Your task to perform on an android device: Search for 12ft 120W LED tube light on home depot Image 0: 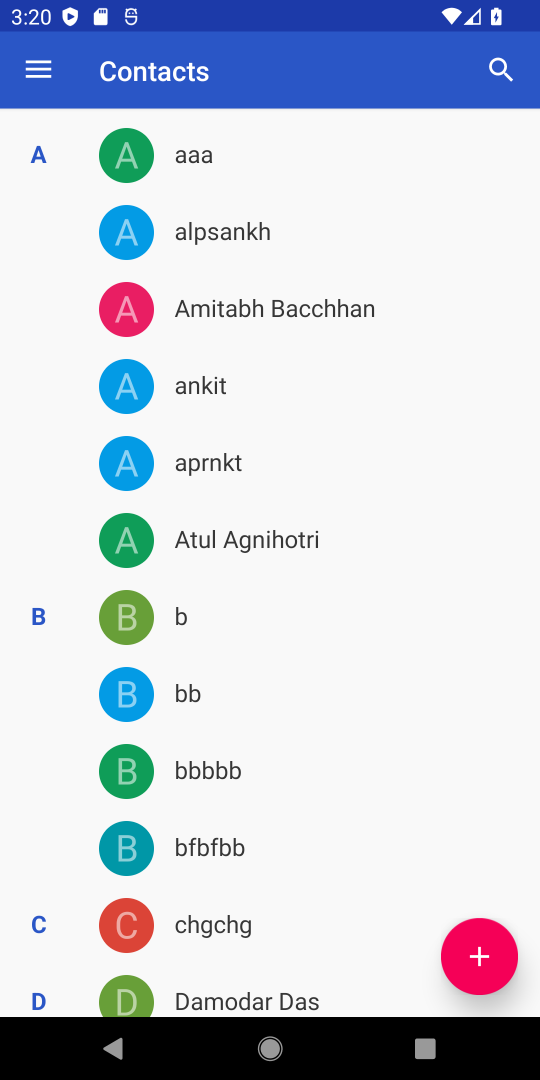
Step 0: press home button
Your task to perform on an android device: Search for 12ft 120W LED tube light on home depot Image 1: 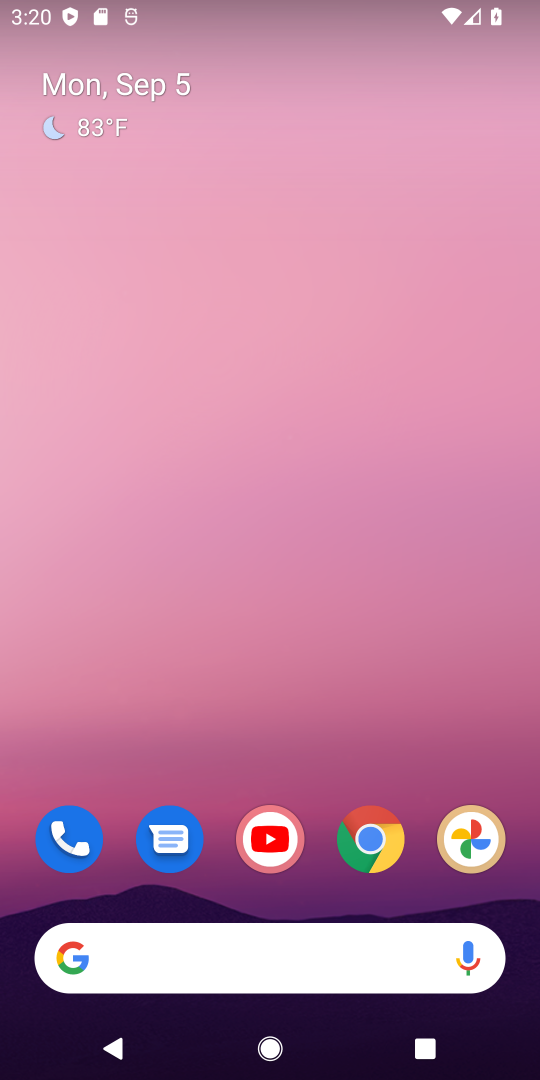
Step 1: click (373, 849)
Your task to perform on an android device: Search for 12ft 120W LED tube light on home depot Image 2: 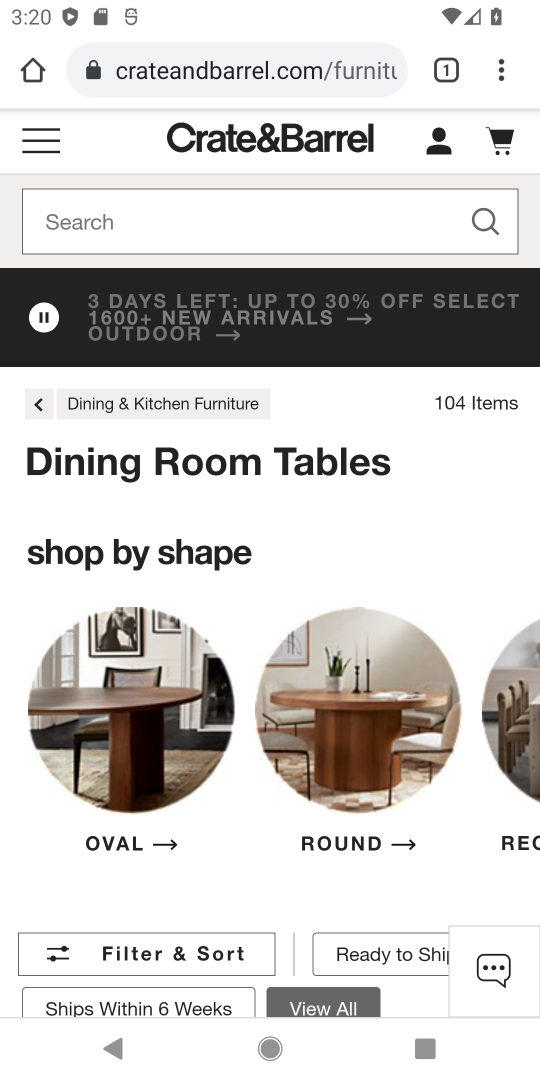
Step 2: click (241, 62)
Your task to perform on an android device: Search for 12ft 120W LED tube light on home depot Image 3: 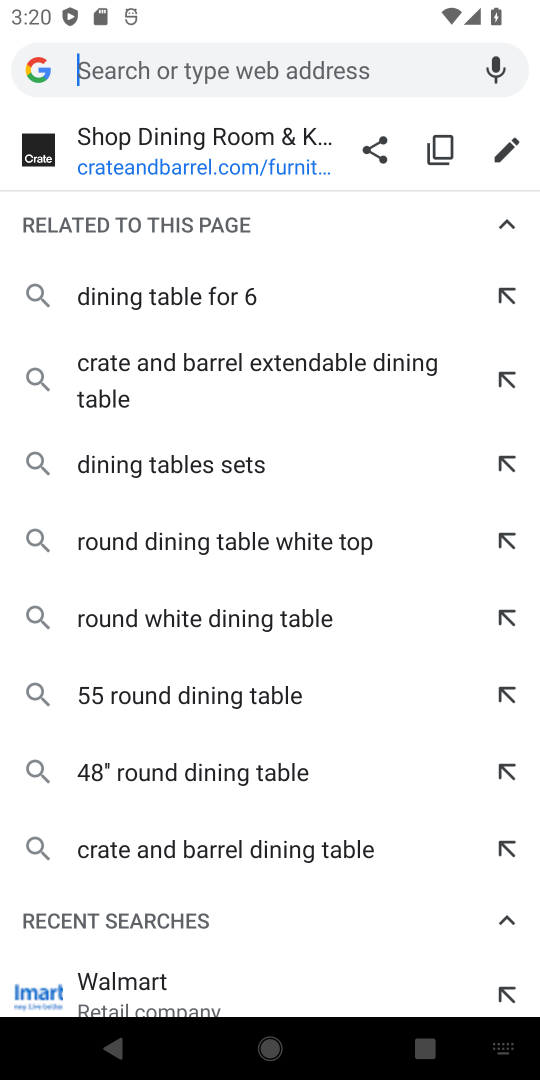
Step 3: type "home depot"
Your task to perform on an android device: Search for 12ft 120W LED tube light on home depot Image 4: 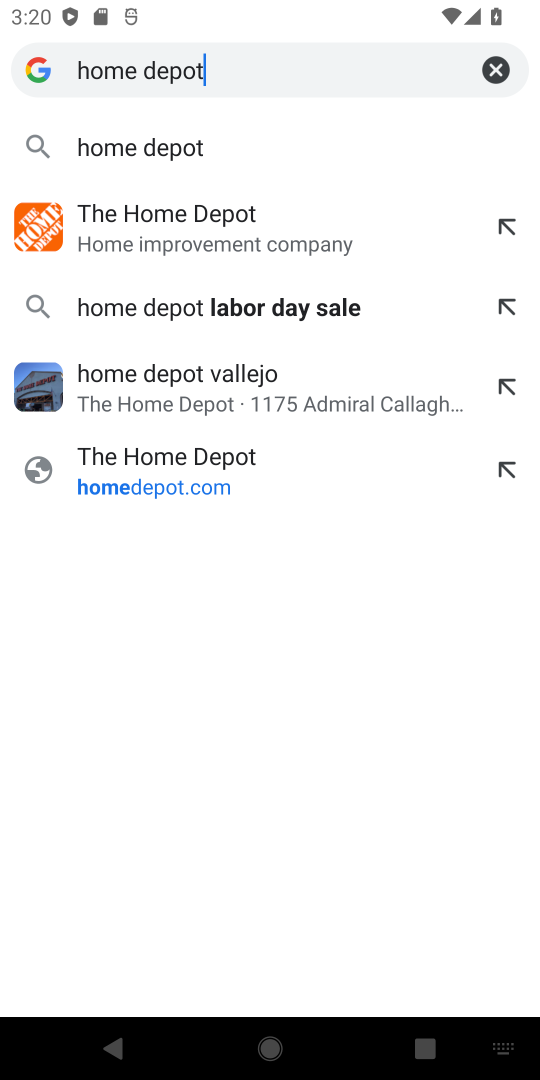
Step 4: click (145, 236)
Your task to perform on an android device: Search for 12ft 120W LED tube light on home depot Image 5: 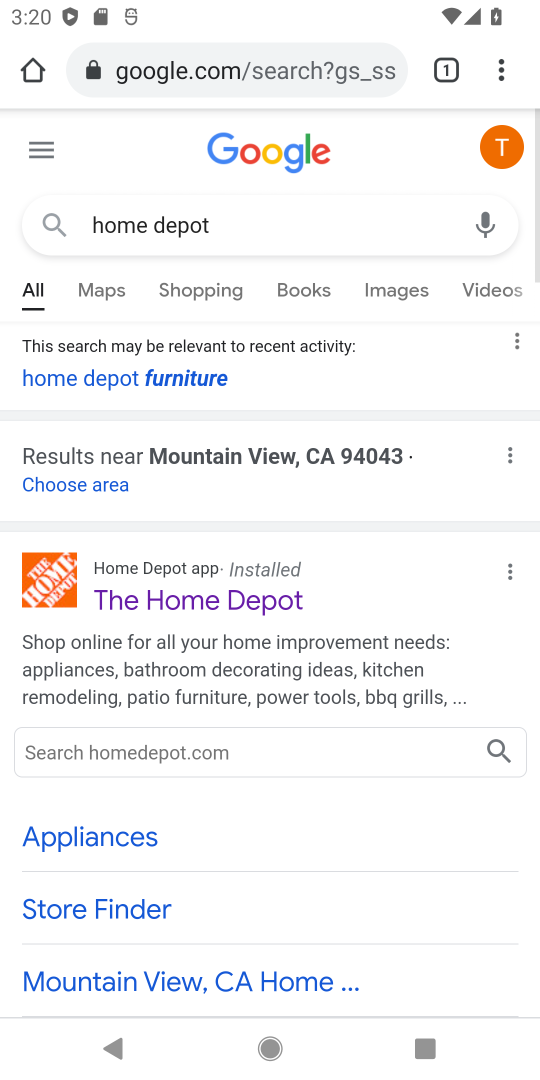
Step 5: drag from (129, 860) to (189, 497)
Your task to perform on an android device: Search for 12ft 120W LED tube light on home depot Image 6: 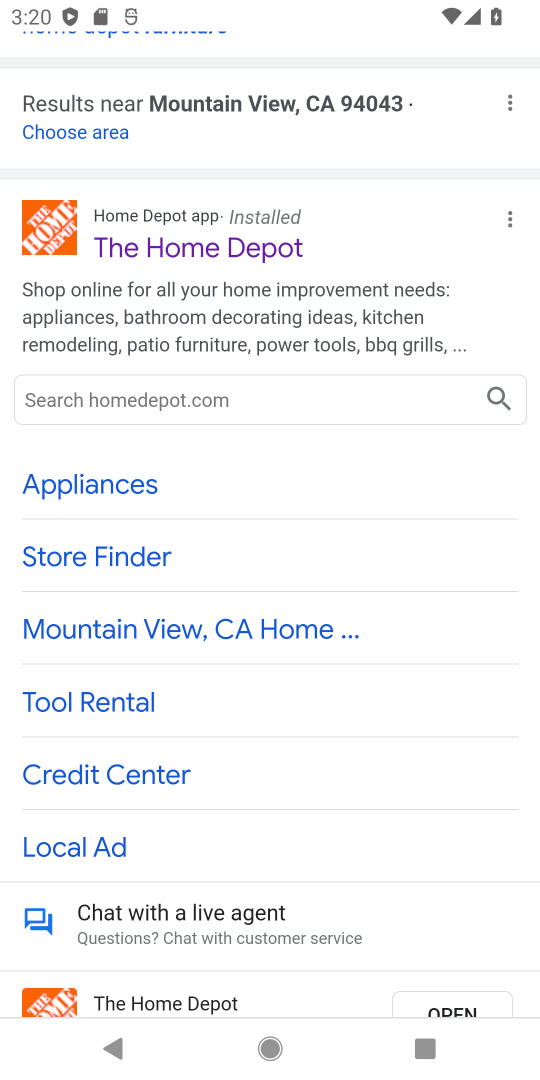
Step 6: drag from (220, 923) to (242, 540)
Your task to perform on an android device: Search for 12ft 120W LED tube light on home depot Image 7: 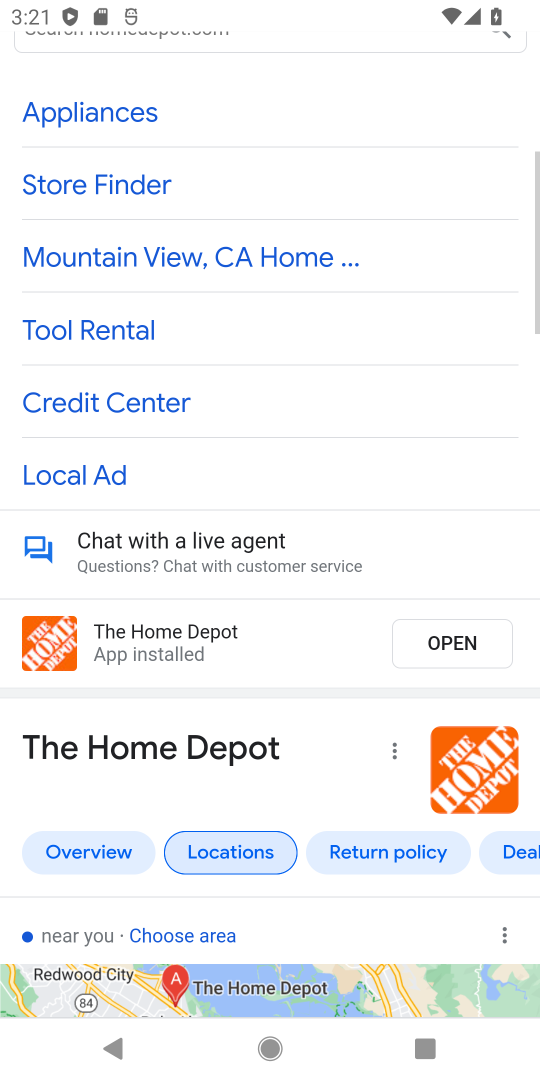
Step 7: click (190, 310)
Your task to perform on an android device: Search for 12ft 120W LED tube light on home depot Image 8: 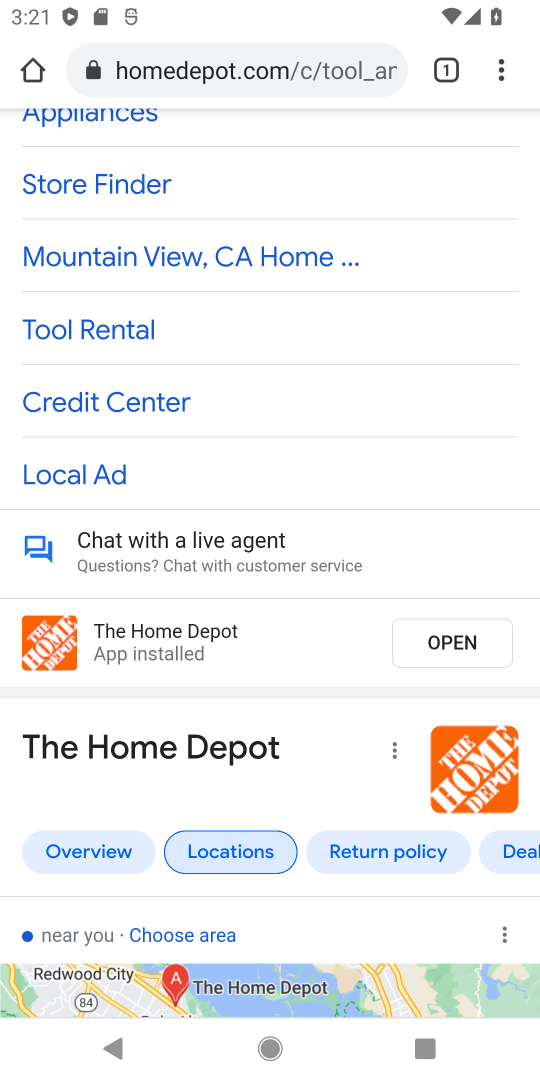
Step 8: task complete